Your task to perform on an android device: Show me recent news Image 0: 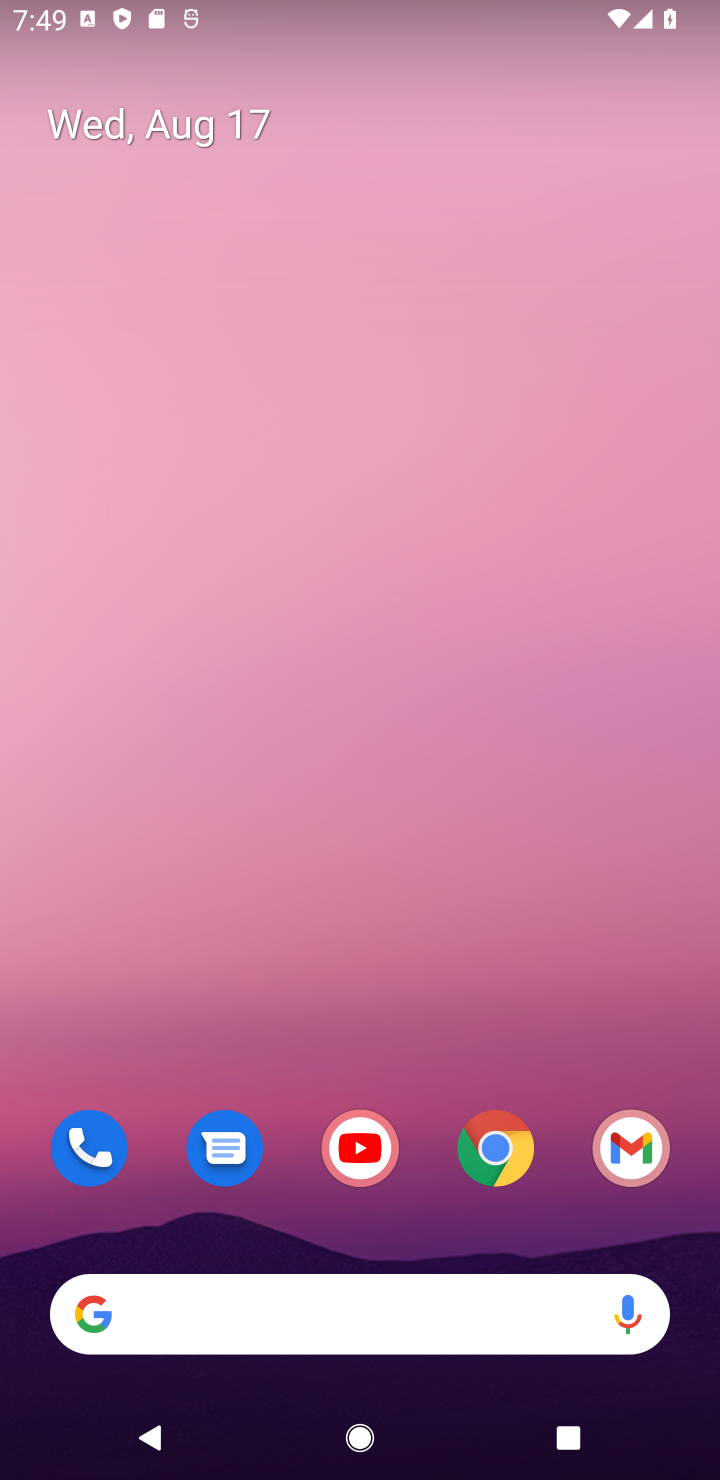
Step 0: drag from (11, 632) to (638, 633)
Your task to perform on an android device: Show me recent news Image 1: 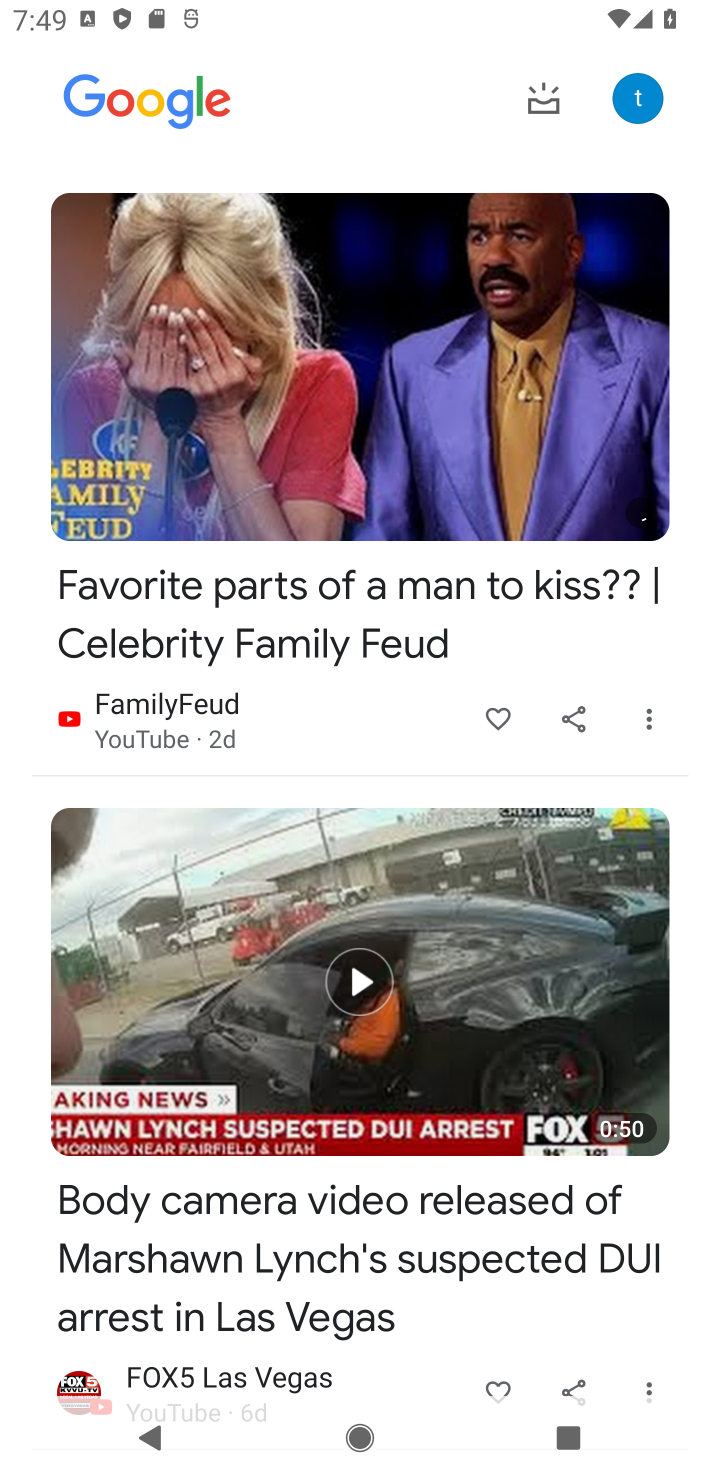
Step 1: task complete